Your task to perform on an android device: Open Android settings Image 0: 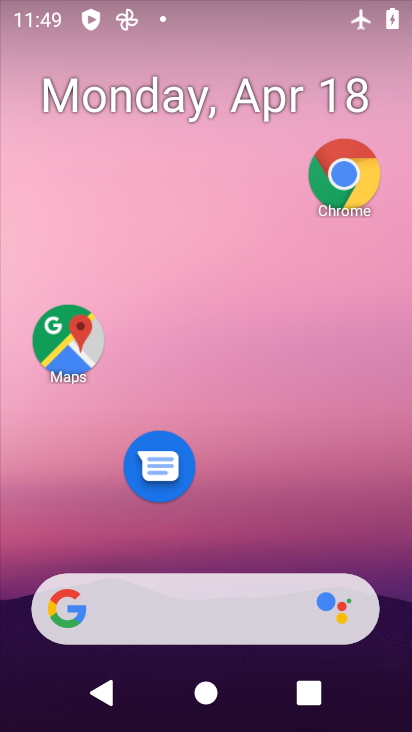
Step 0: click (263, 465)
Your task to perform on an android device: Open Android settings Image 1: 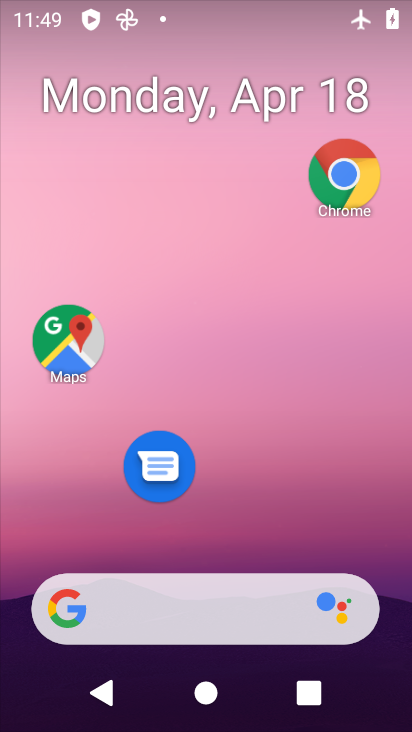
Step 1: drag from (187, 612) to (309, 117)
Your task to perform on an android device: Open Android settings Image 2: 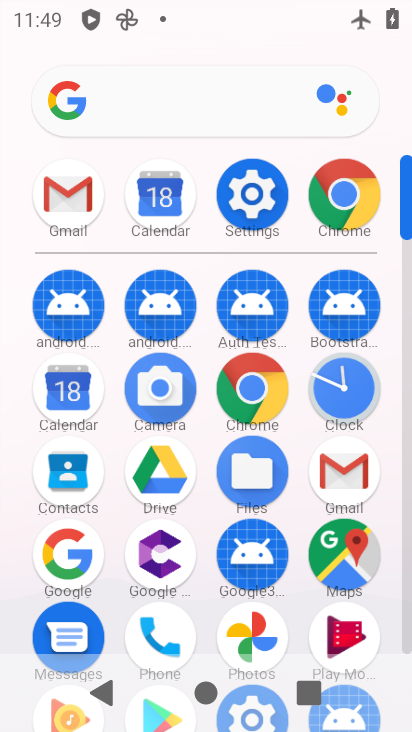
Step 2: click (261, 221)
Your task to perform on an android device: Open Android settings Image 3: 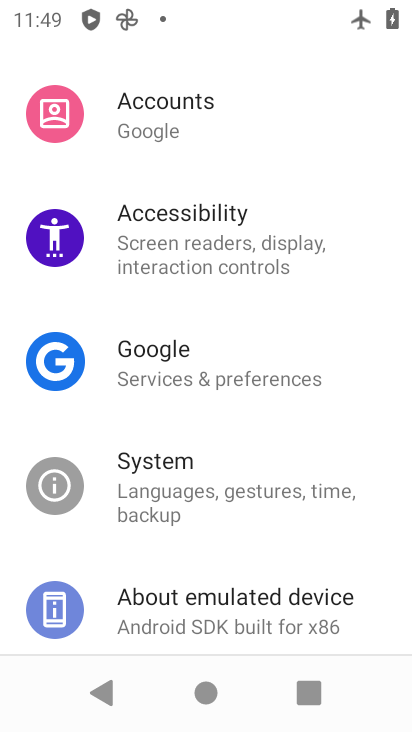
Step 3: drag from (294, 470) to (340, 162)
Your task to perform on an android device: Open Android settings Image 4: 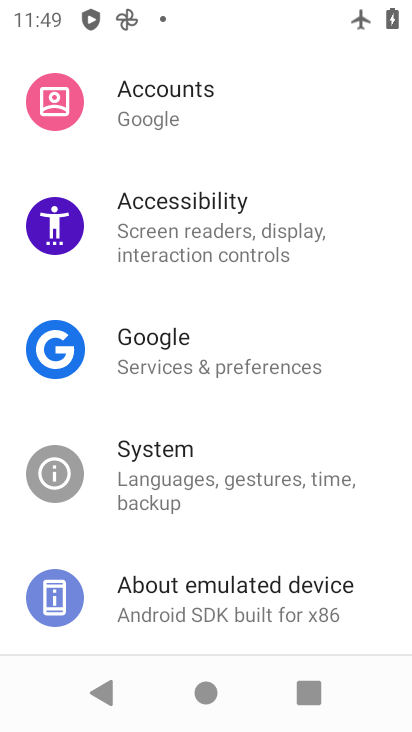
Step 4: click (242, 580)
Your task to perform on an android device: Open Android settings Image 5: 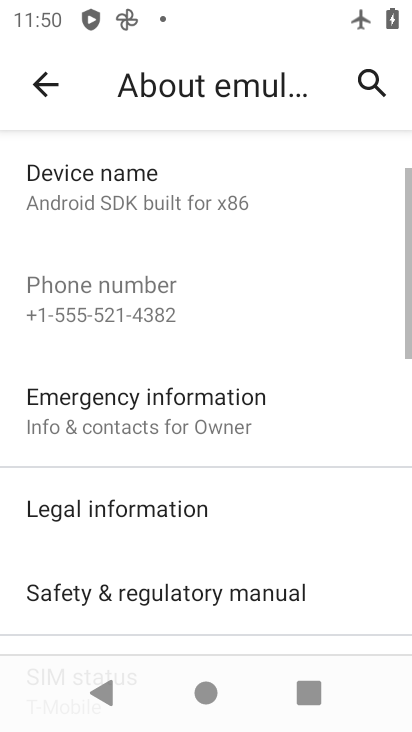
Step 5: drag from (239, 502) to (290, 182)
Your task to perform on an android device: Open Android settings Image 6: 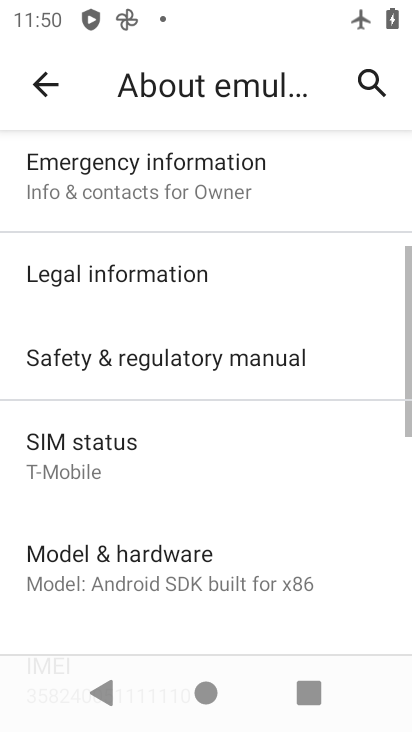
Step 6: drag from (236, 507) to (296, 214)
Your task to perform on an android device: Open Android settings Image 7: 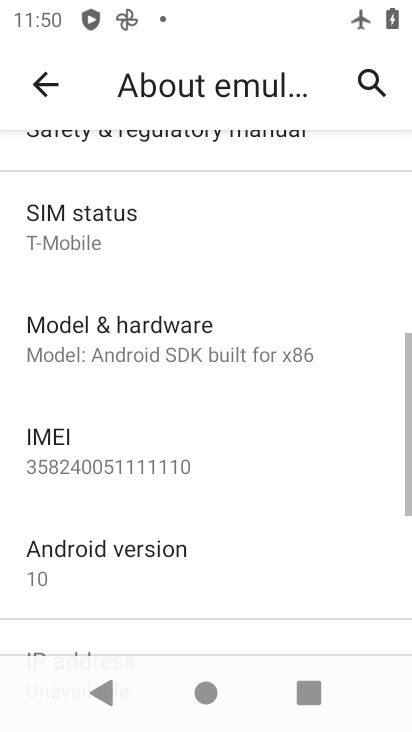
Step 7: click (220, 568)
Your task to perform on an android device: Open Android settings Image 8: 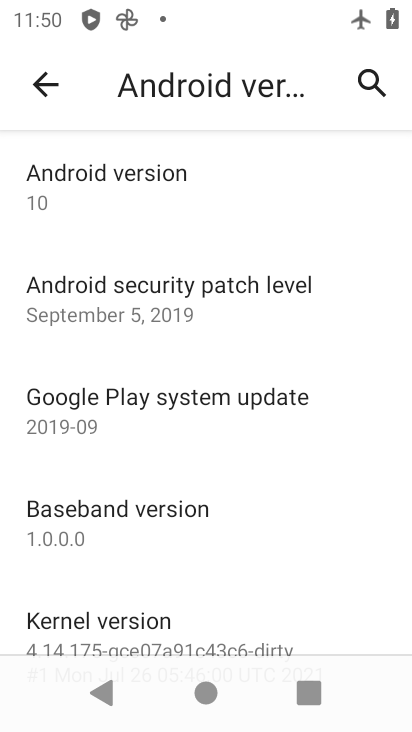
Step 8: task complete